Your task to perform on an android device: Go to accessibility settings Image 0: 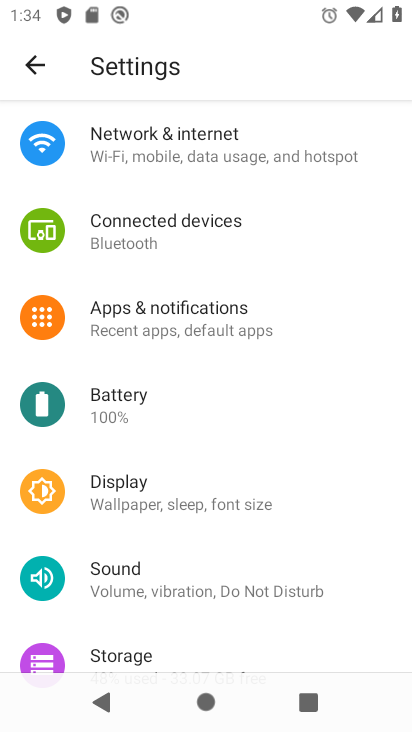
Step 0: drag from (314, 635) to (228, 240)
Your task to perform on an android device: Go to accessibility settings Image 1: 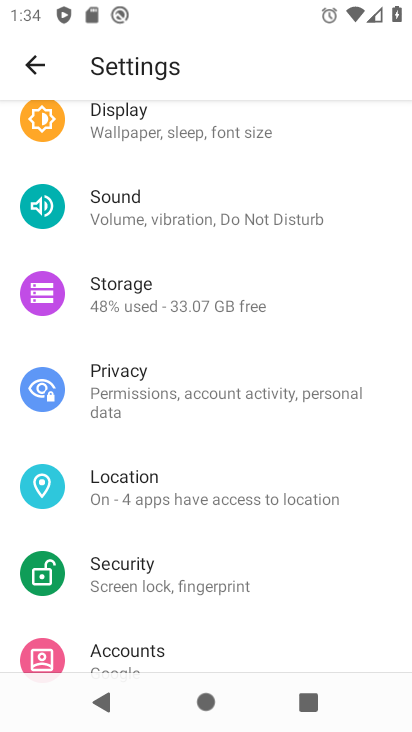
Step 1: drag from (192, 609) to (156, 320)
Your task to perform on an android device: Go to accessibility settings Image 2: 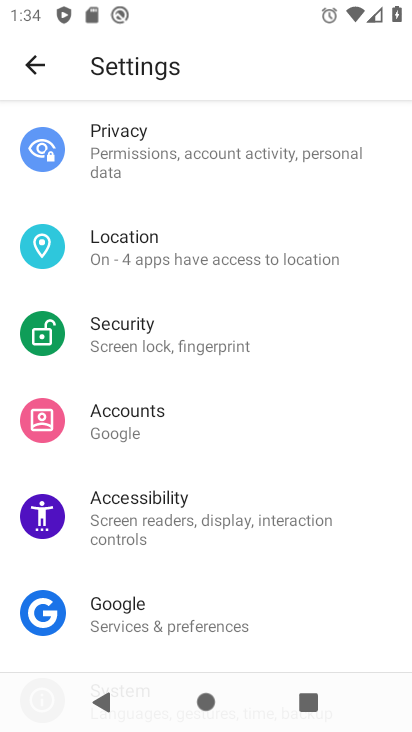
Step 2: click (161, 487)
Your task to perform on an android device: Go to accessibility settings Image 3: 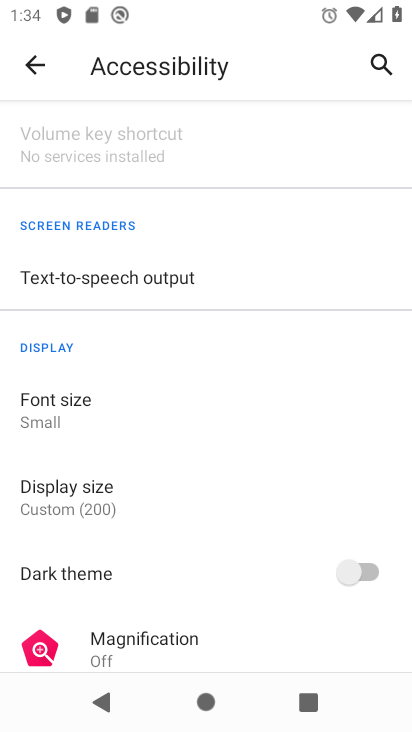
Step 3: task complete